Your task to perform on an android device: empty trash in google photos Image 0: 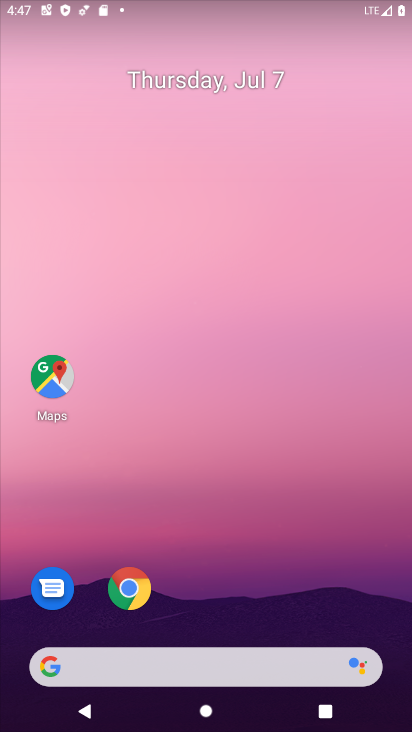
Step 0: drag from (319, 624) to (299, 196)
Your task to perform on an android device: empty trash in google photos Image 1: 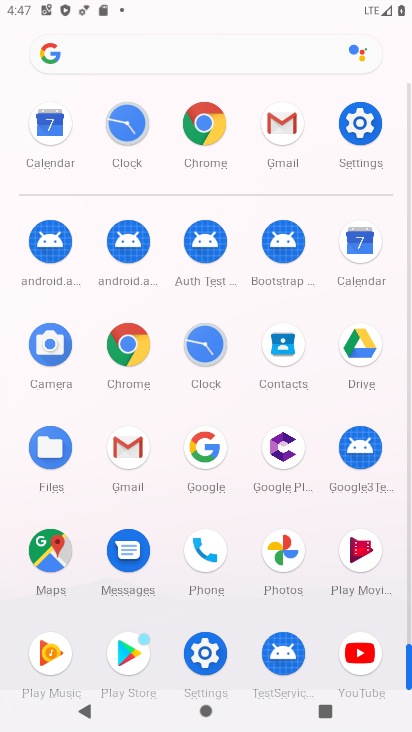
Step 1: click (272, 542)
Your task to perform on an android device: empty trash in google photos Image 2: 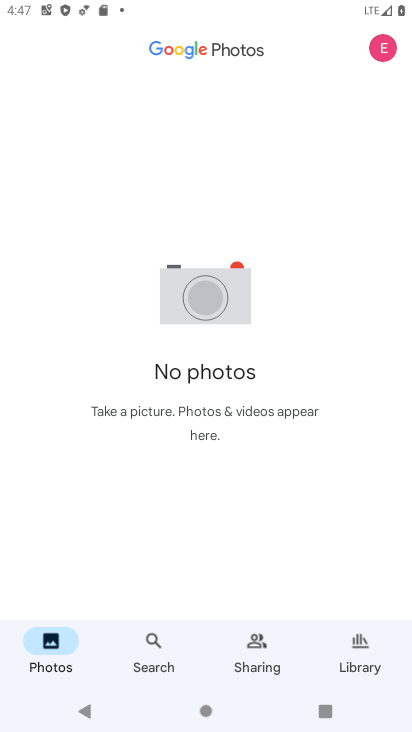
Step 2: click (384, 51)
Your task to perform on an android device: empty trash in google photos Image 3: 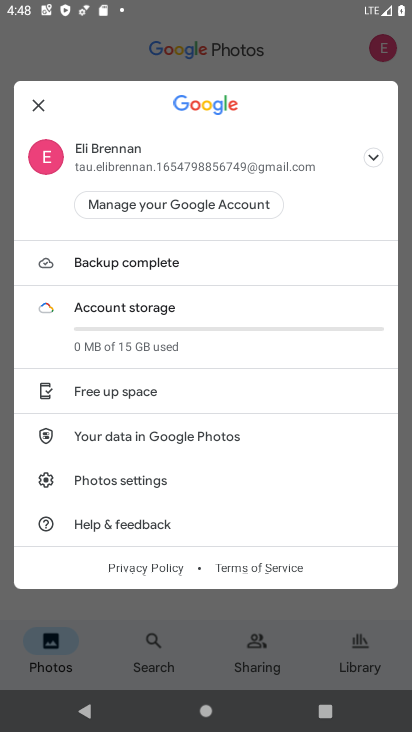
Step 3: click (191, 618)
Your task to perform on an android device: empty trash in google photos Image 4: 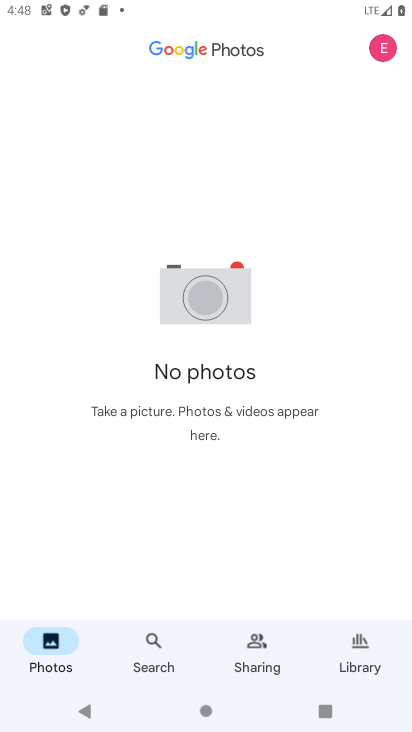
Step 4: click (345, 642)
Your task to perform on an android device: empty trash in google photos Image 5: 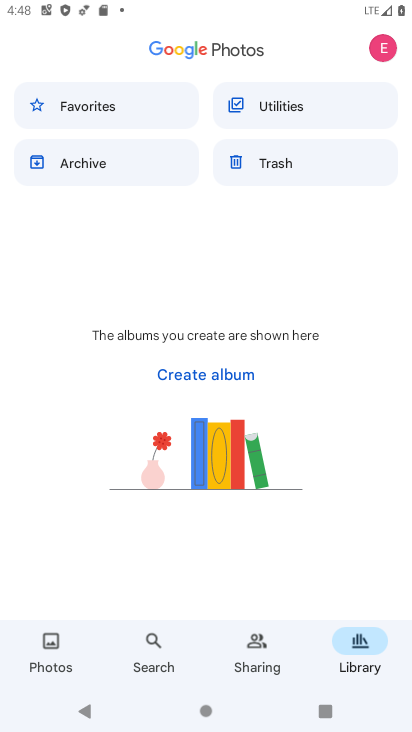
Step 5: click (309, 156)
Your task to perform on an android device: empty trash in google photos Image 6: 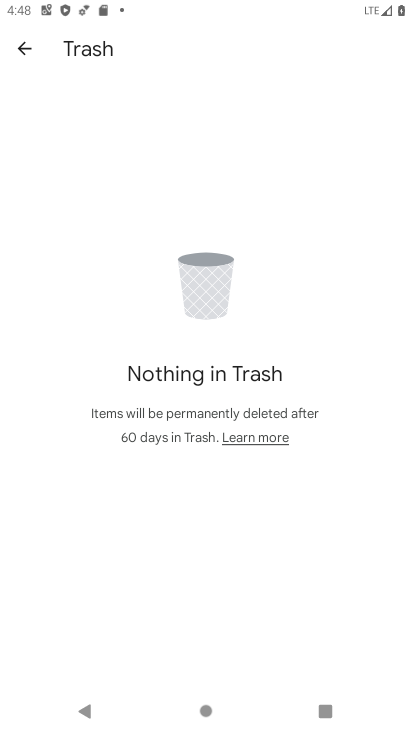
Step 6: task complete